Your task to perform on an android device: turn on priority inbox in the gmail app Image 0: 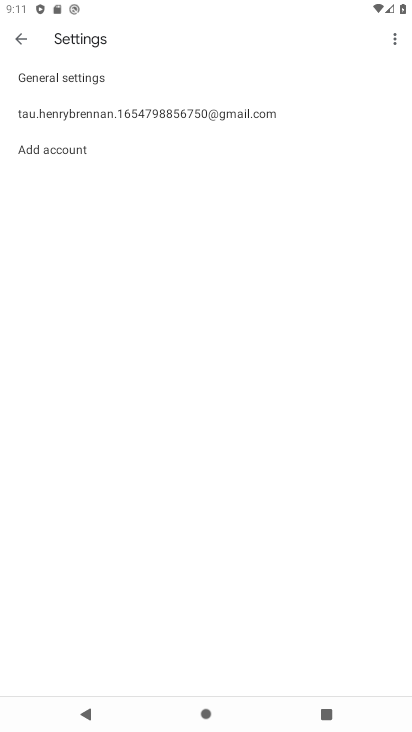
Step 0: press home button
Your task to perform on an android device: turn on priority inbox in the gmail app Image 1: 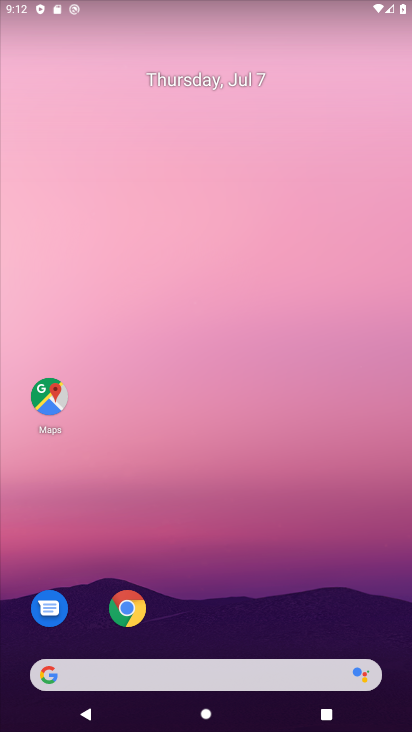
Step 1: drag from (241, 624) to (275, 54)
Your task to perform on an android device: turn on priority inbox in the gmail app Image 2: 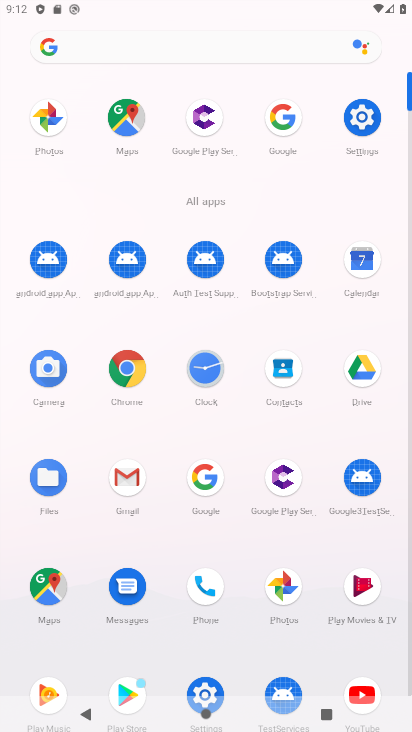
Step 2: click (132, 475)
Your task to perform on an android device: turn on priority inbox in the gmail app Image 3: 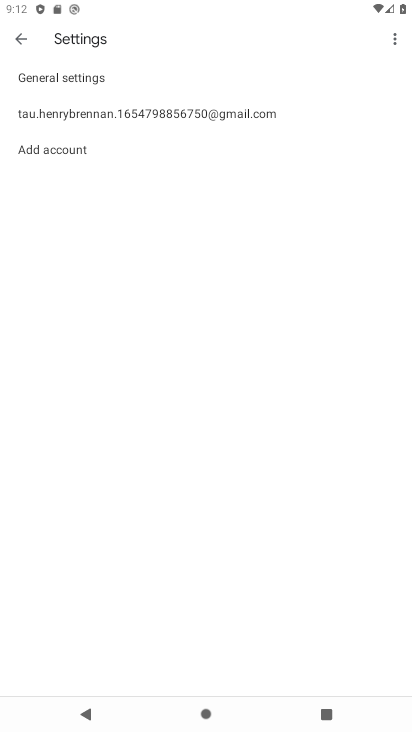
Step 3: click (196, 112)
Your task to perform on an android device: turn on priority inbox in the gmail app Image 4: 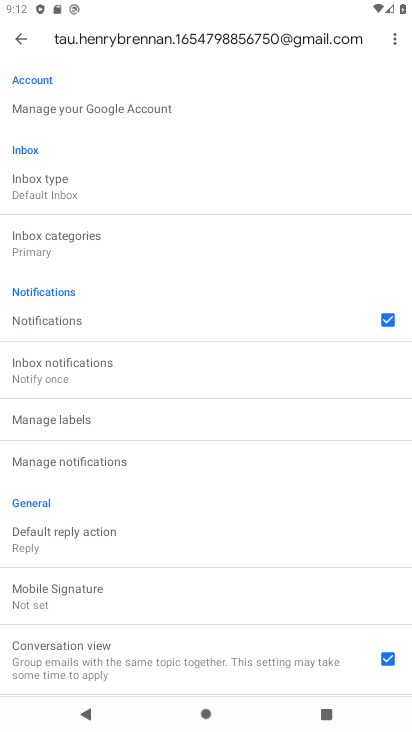
Step 4: click (78, 241)
Your task to perform on an android device: turn on priority inbox in the gmail app Image 5: 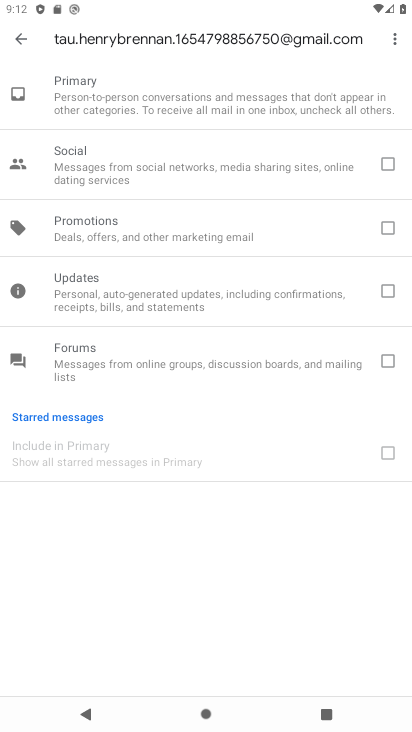
Step 5: press back button
Your task to perform on an android device: turn on priority inbox in the gmail app Image 6: 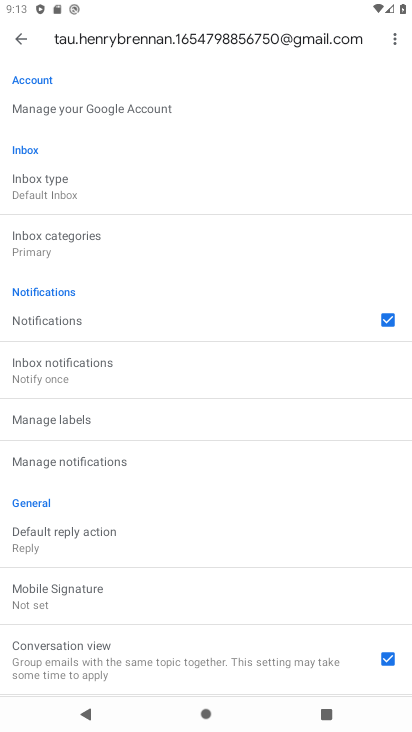
Step 6: click (73, 196)
Your task to perform on an android device: turn on priority inbox in the gmail app Image 7: 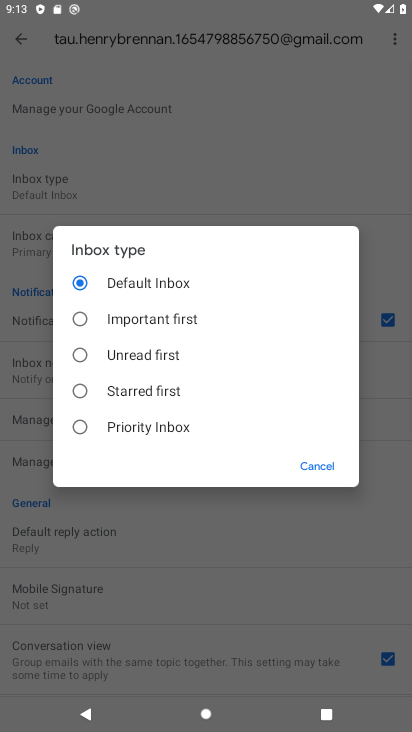
Step 7: click (83, 422)
Your task to perform on an android device: turn on priority inbox in the gmail app Image 8: 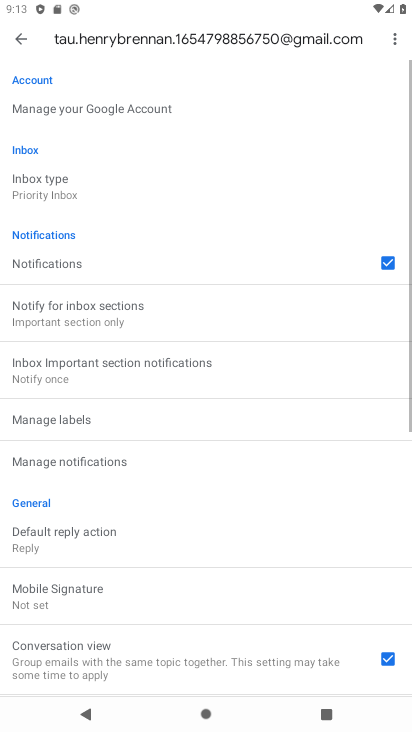
Step 8: task complete